Your task to perform on an android device: Search for Italian restaurants on Maps Image 0: 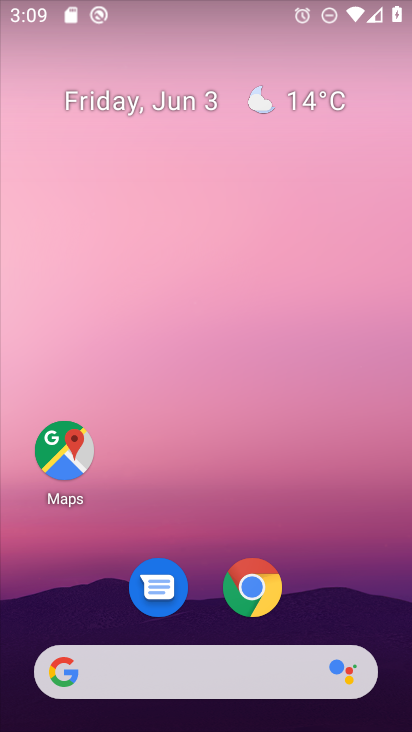
Step 0: drag from (219, 723) to (224, 94)
Your task to perform on an android device: Search for Italian restaurants on Maps Image 1: 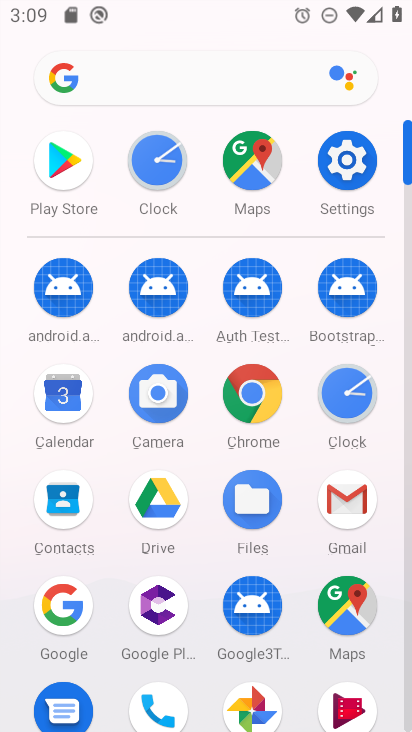
Step 1: click (356, 607)
Your task to perform on an android device: Search for Italian restaurants on Maps Image 2: 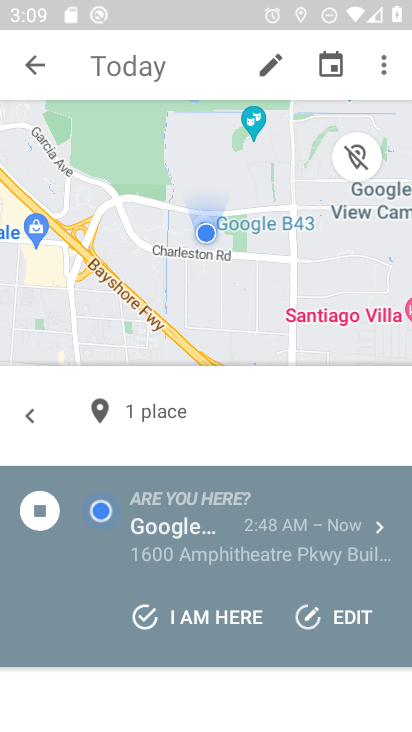
Step 2: click (39, 58)
Your task to perform on an android device: Search for Italian restaurants on Maps Image 3: 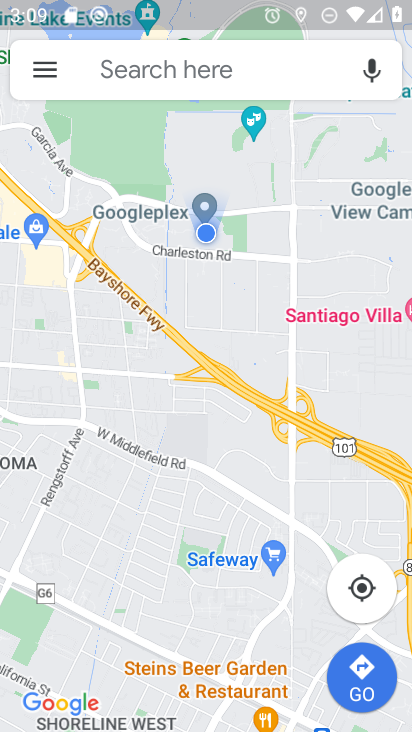
Step 3: click (175, 78)
Your task to perform on an android device: Search for Italian restaurants on Maps Image 4: 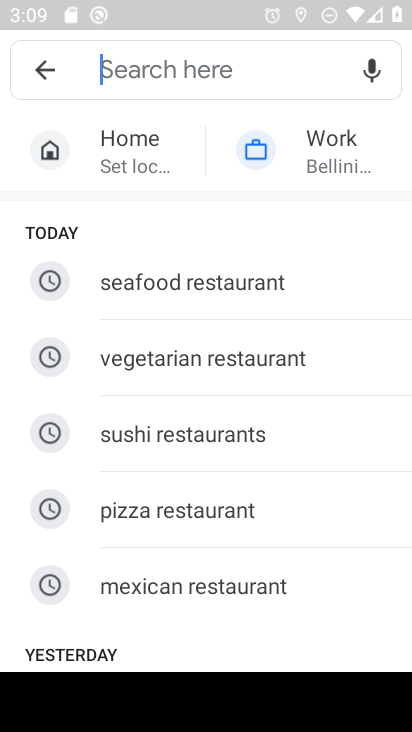
Step 4: type "italian restaurants"
Your task to perform on an android device: Search for Italian restaurants on Maps Image 5: 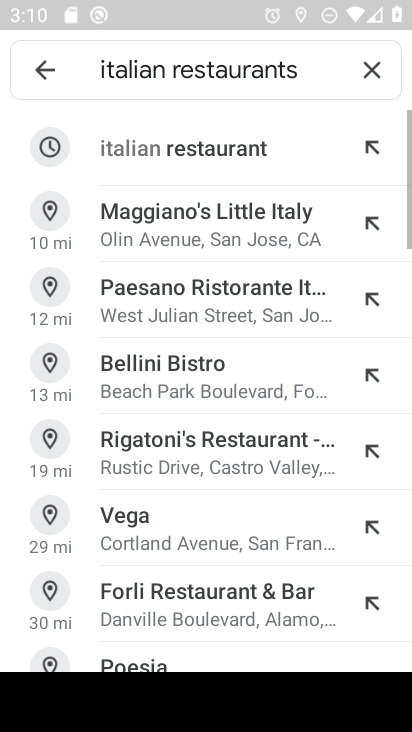
Step 5: click (240, 145)
Your task to perform on an android device: Search for Italian restaurants on Maps Image 6: 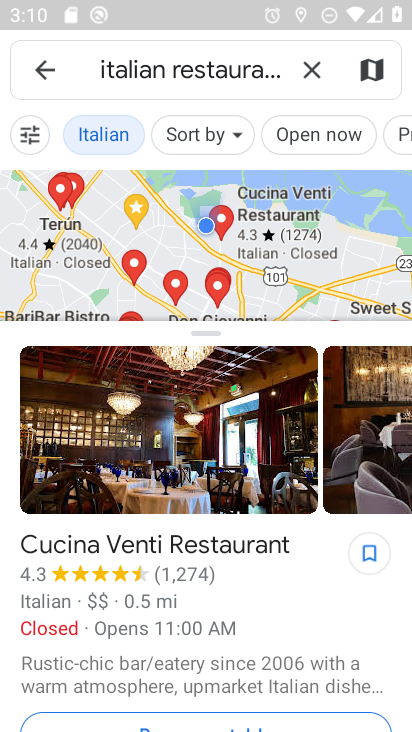
Step 6: task complete